Your task to perform on an android device: When is my next meeting? Image 0: 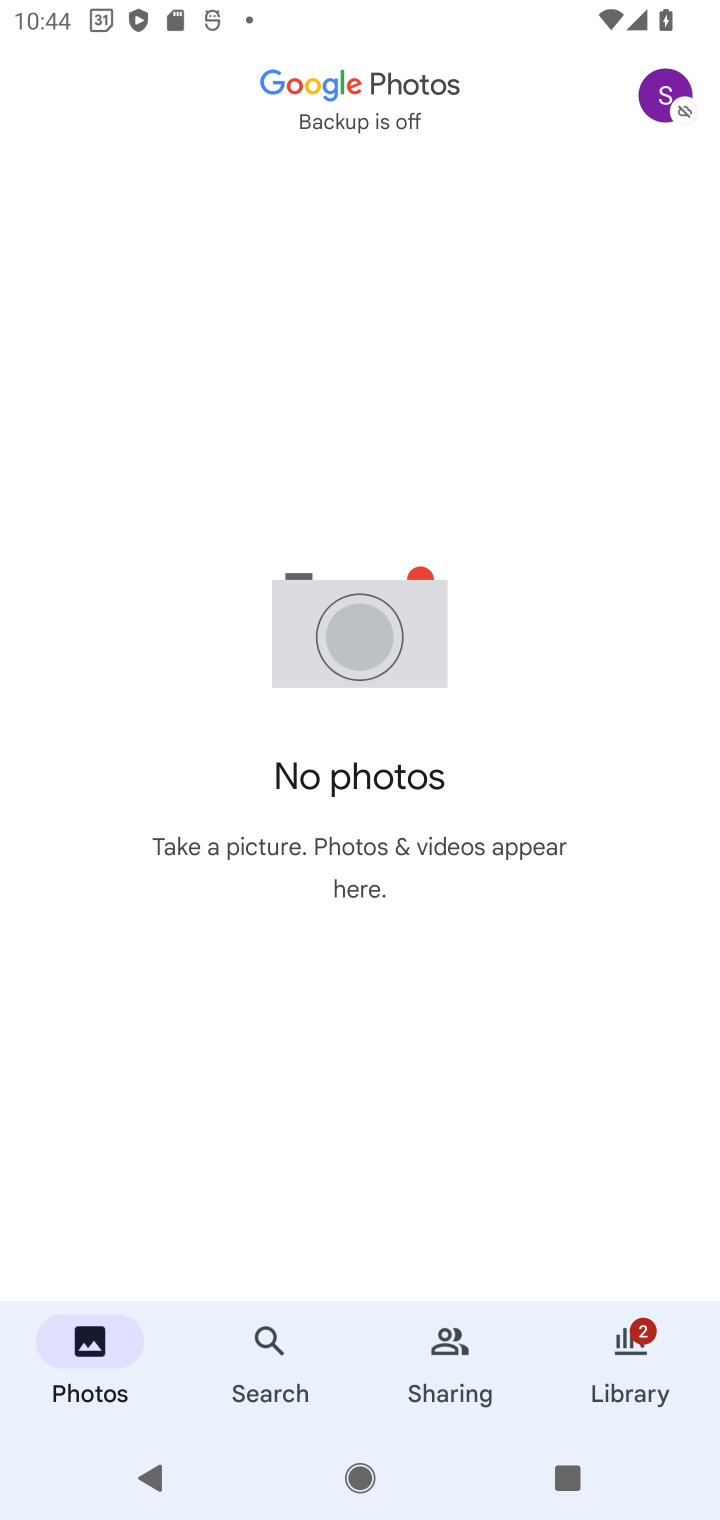
Step 0: press home button
Your task to perform on an android device: When is my next meeting? Image 1: 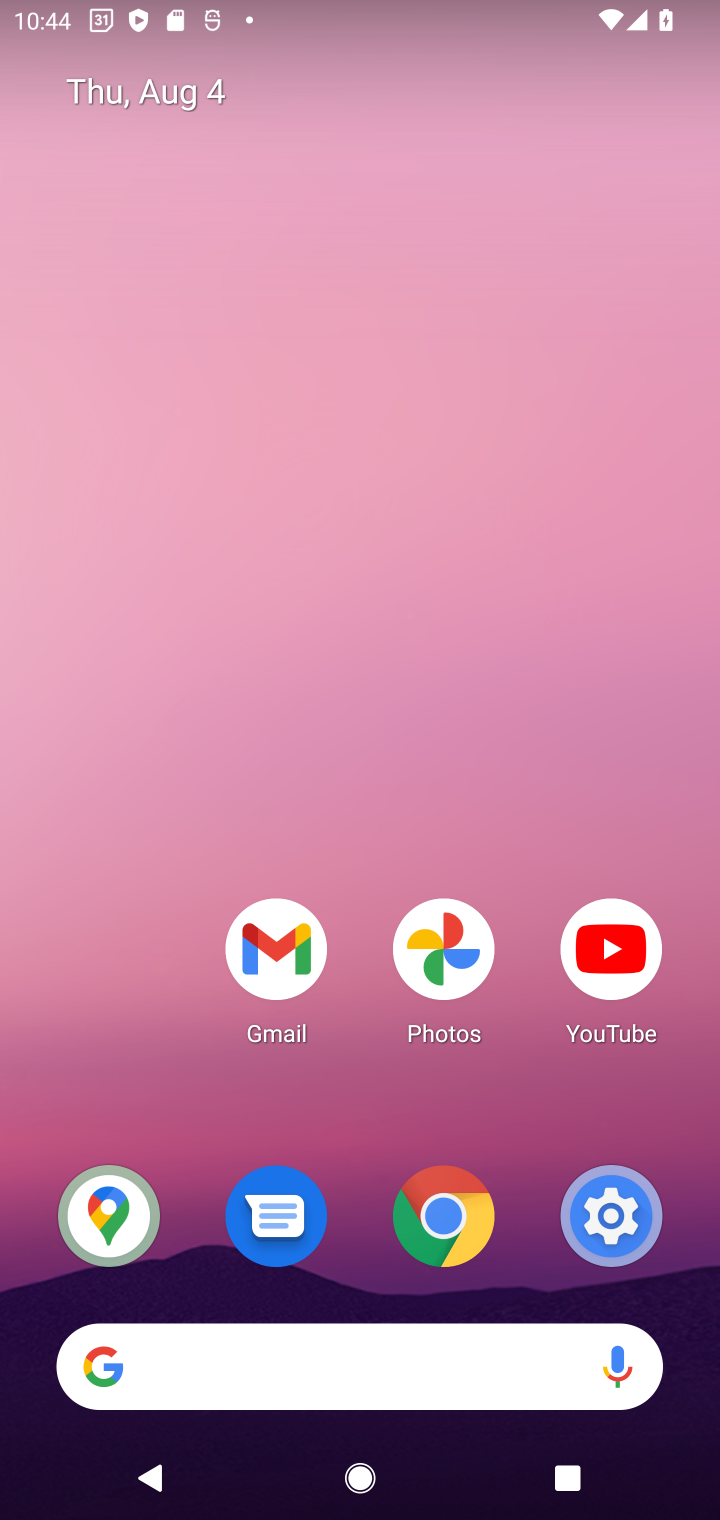
Step 1: drag from (246, 1363) to (511, 383)
Your task to perform on an android device: When is my next meeting? Image 2: 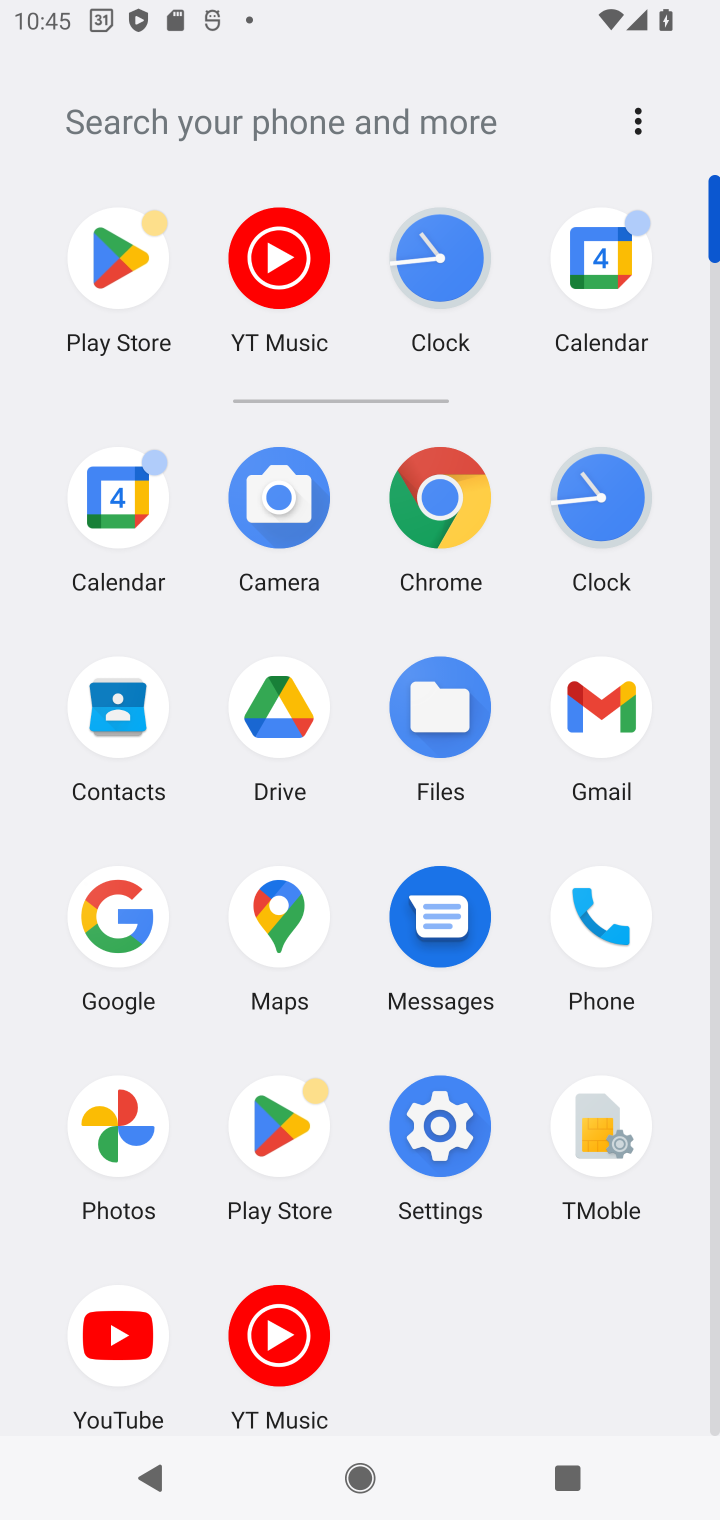
Step 2: click (608, 265)
Your task to perform on an android device: When is my next meeting? Image 3: 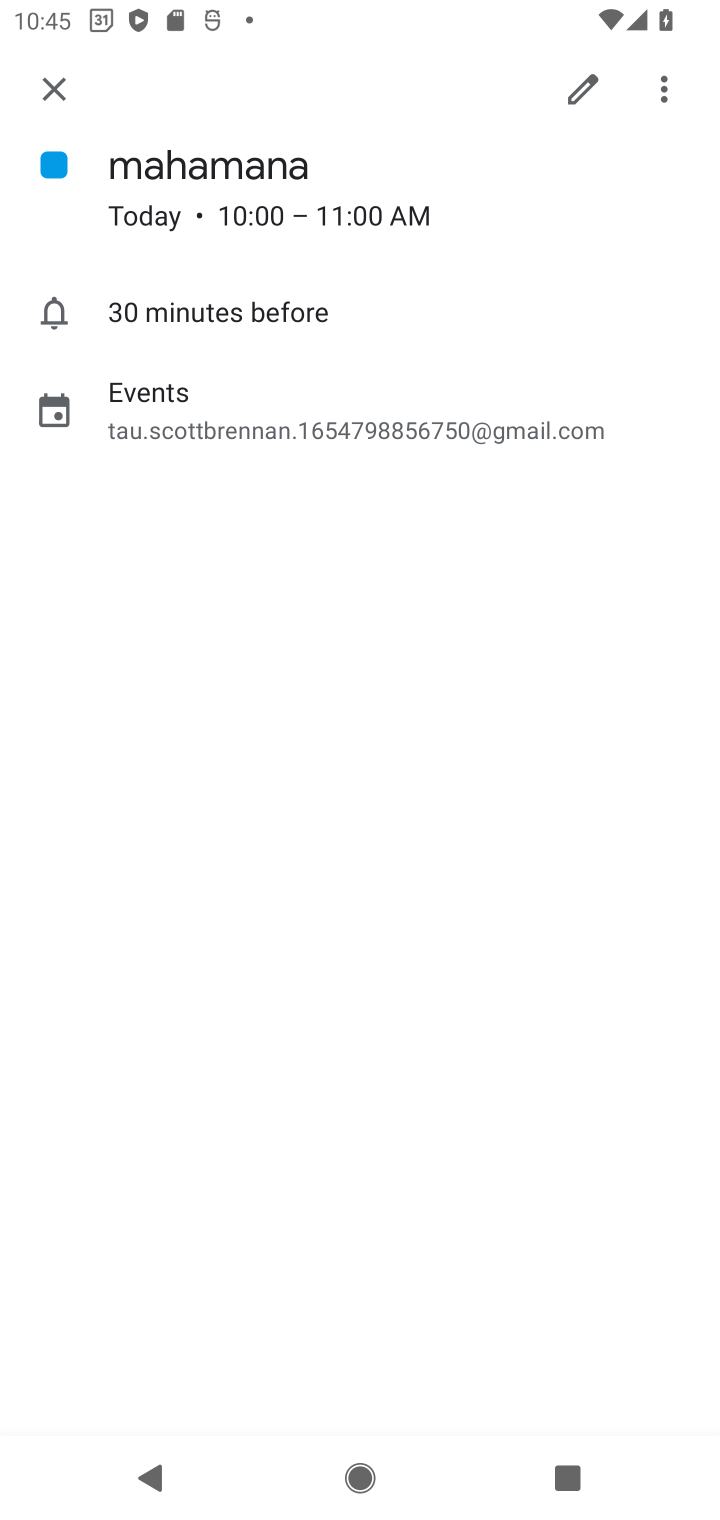
Step 3: click (46, 95)
Your task to perform on an android device: When is my next meeting? Image 4: 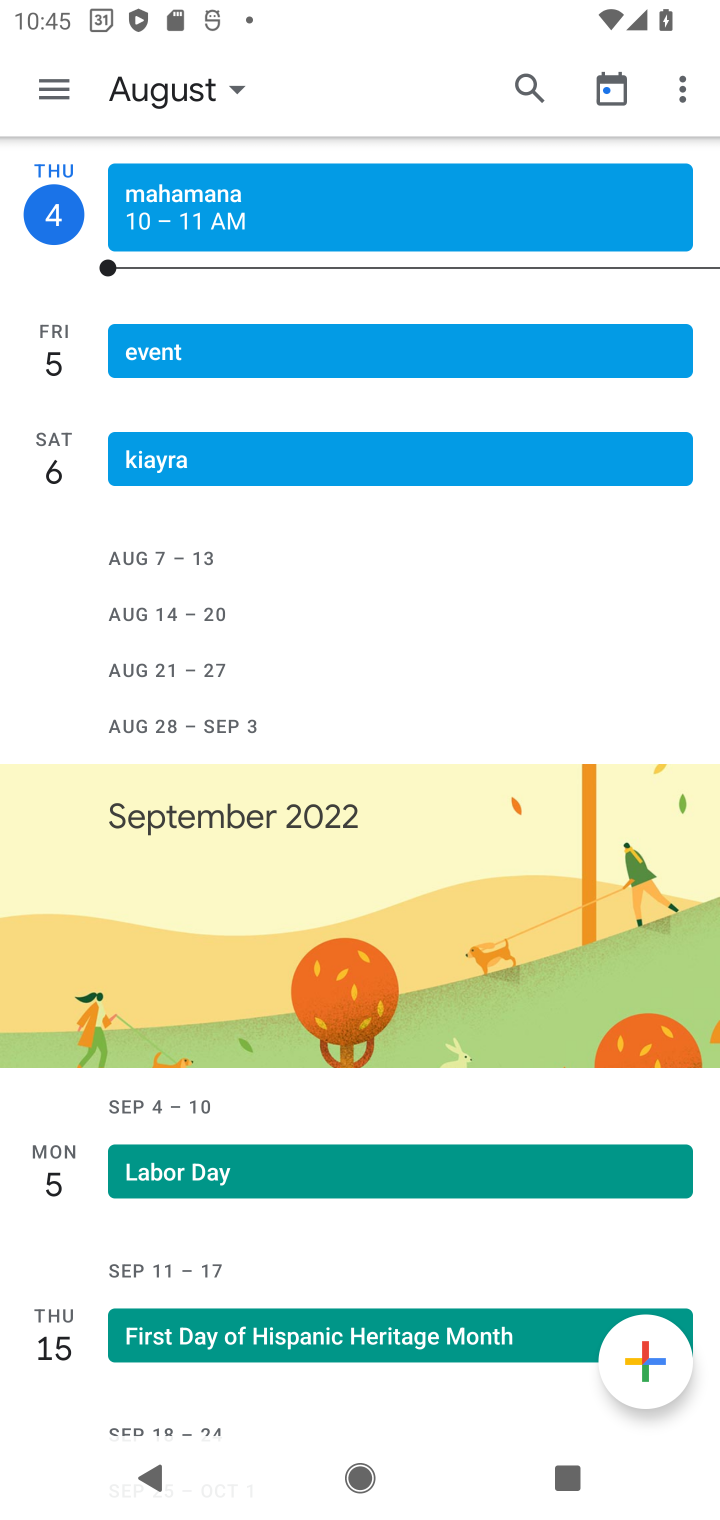
Step 4: click (610, 95)
Your task to perform on an android device: When is my next meeting? Image 5: 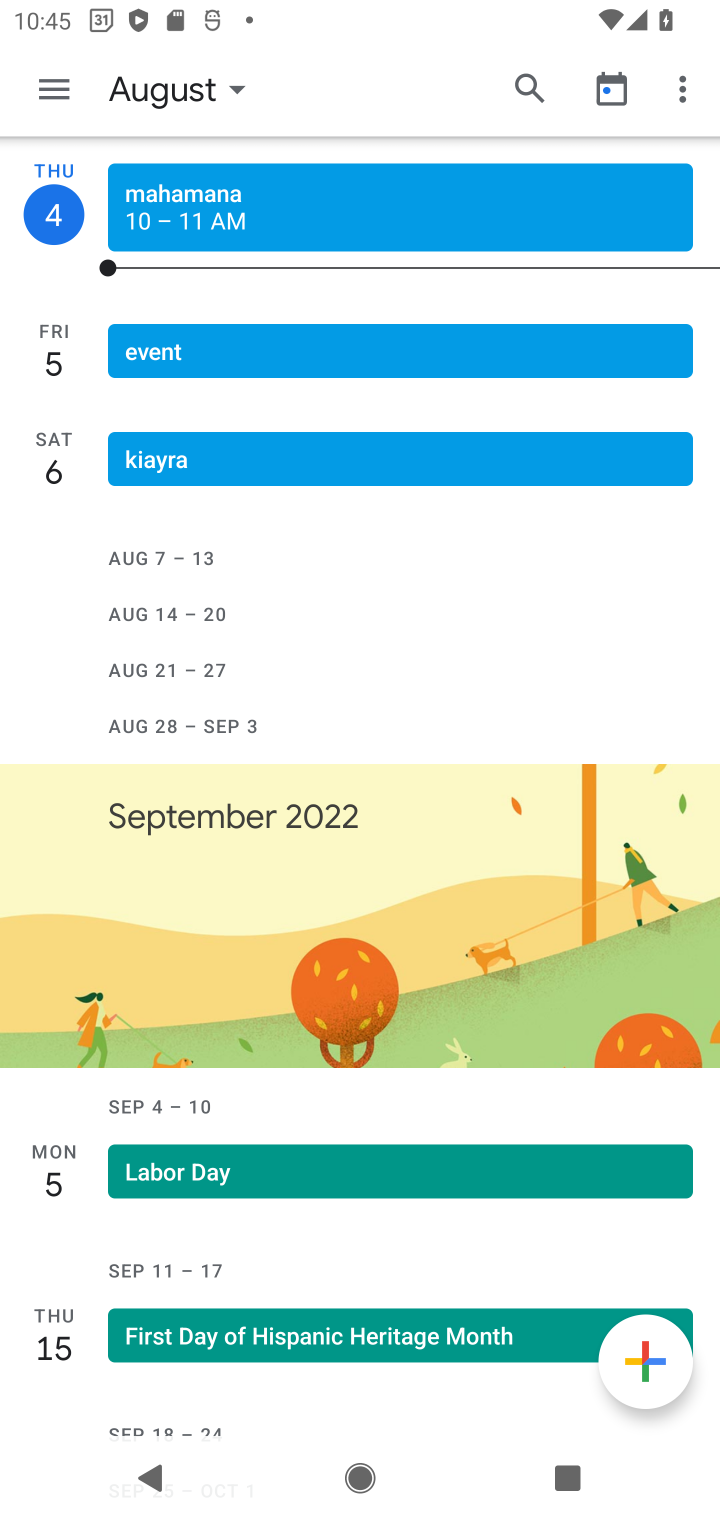
Step 5: click (233, 74)
Your task to perform on an android device: When is my next meeting? Image 6: 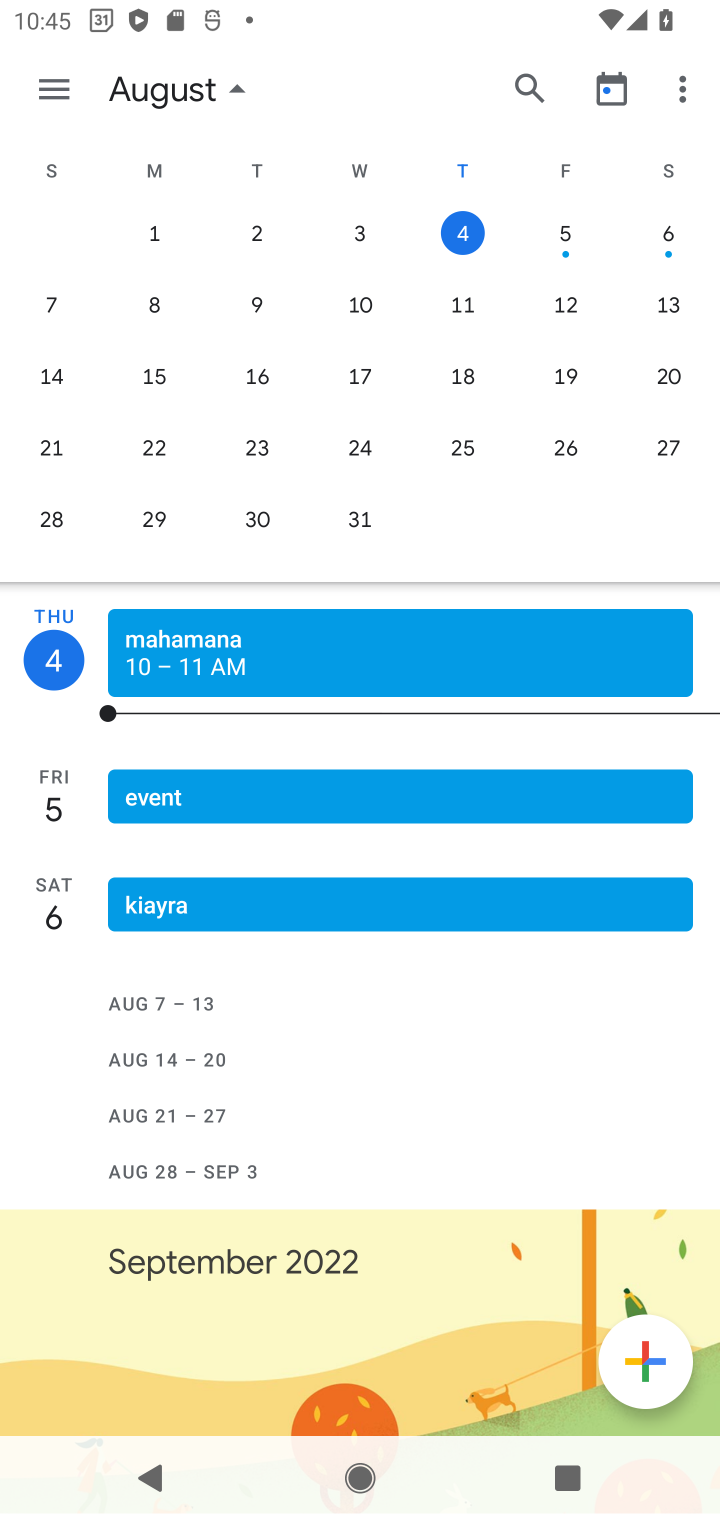
Step 6: click (558, 217)
Your task to perform on an android device: When is my next meeting? Image 7: 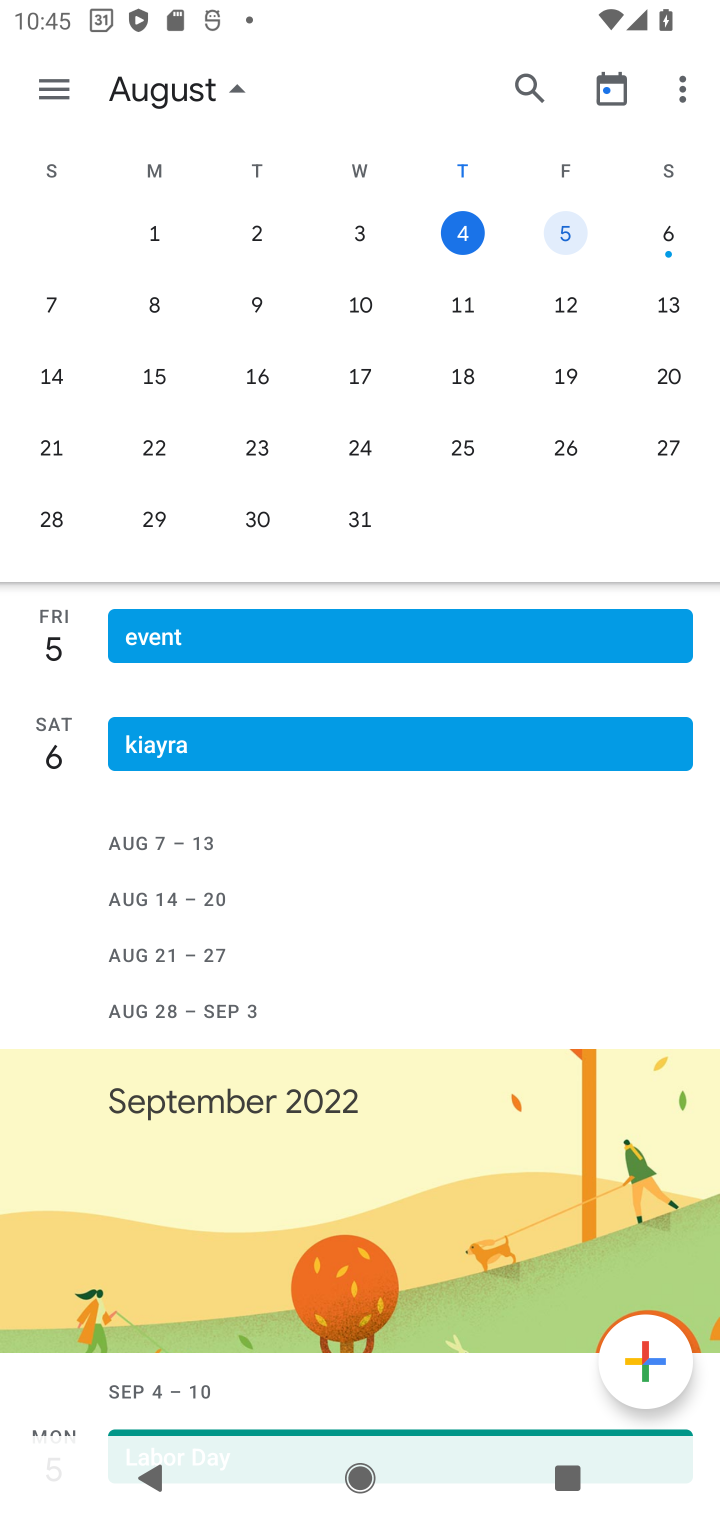
Step 7: click (43, 102)
Your task to perform on an android device: When is my next meeting? Image 8: 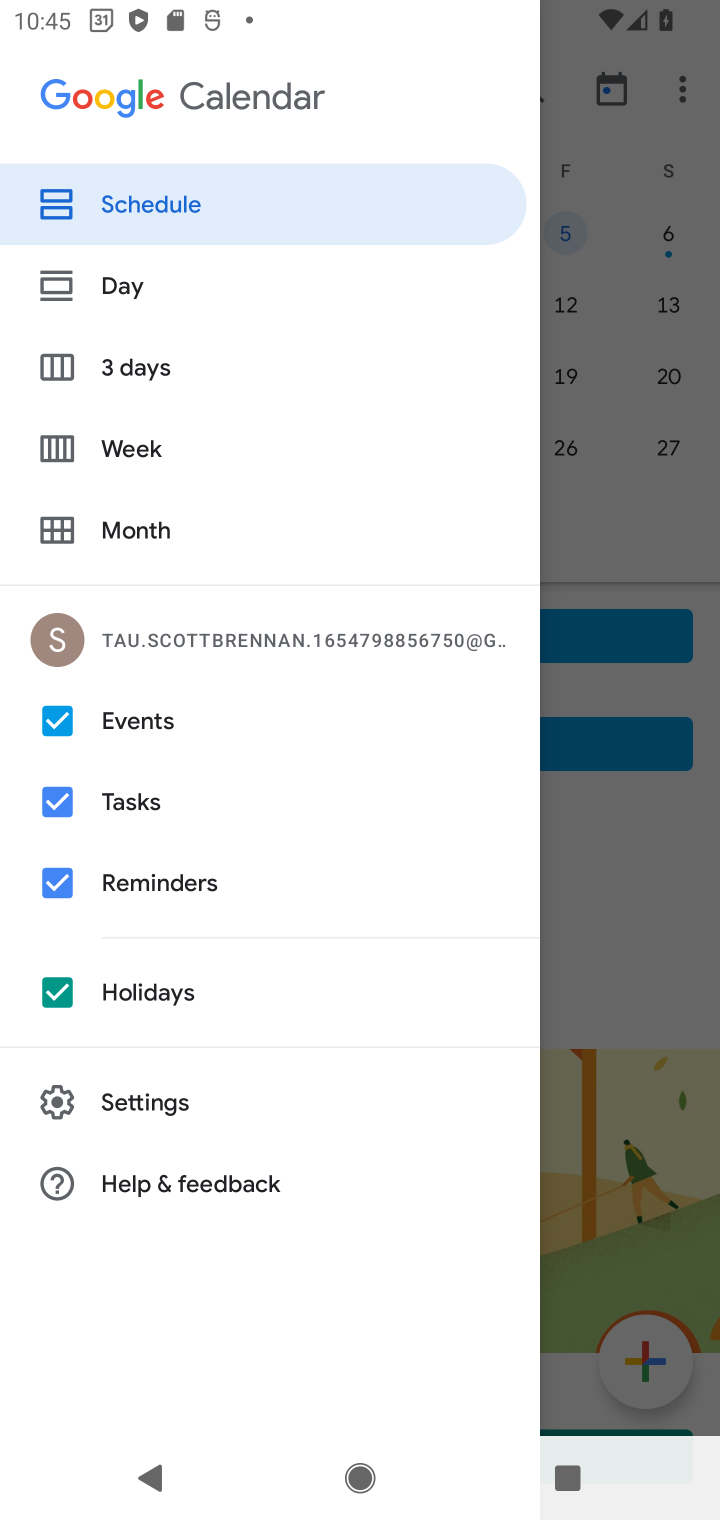
Step 8: click (106, 226)
Your task to perform on an android device: When is my next meeting? Image 9: 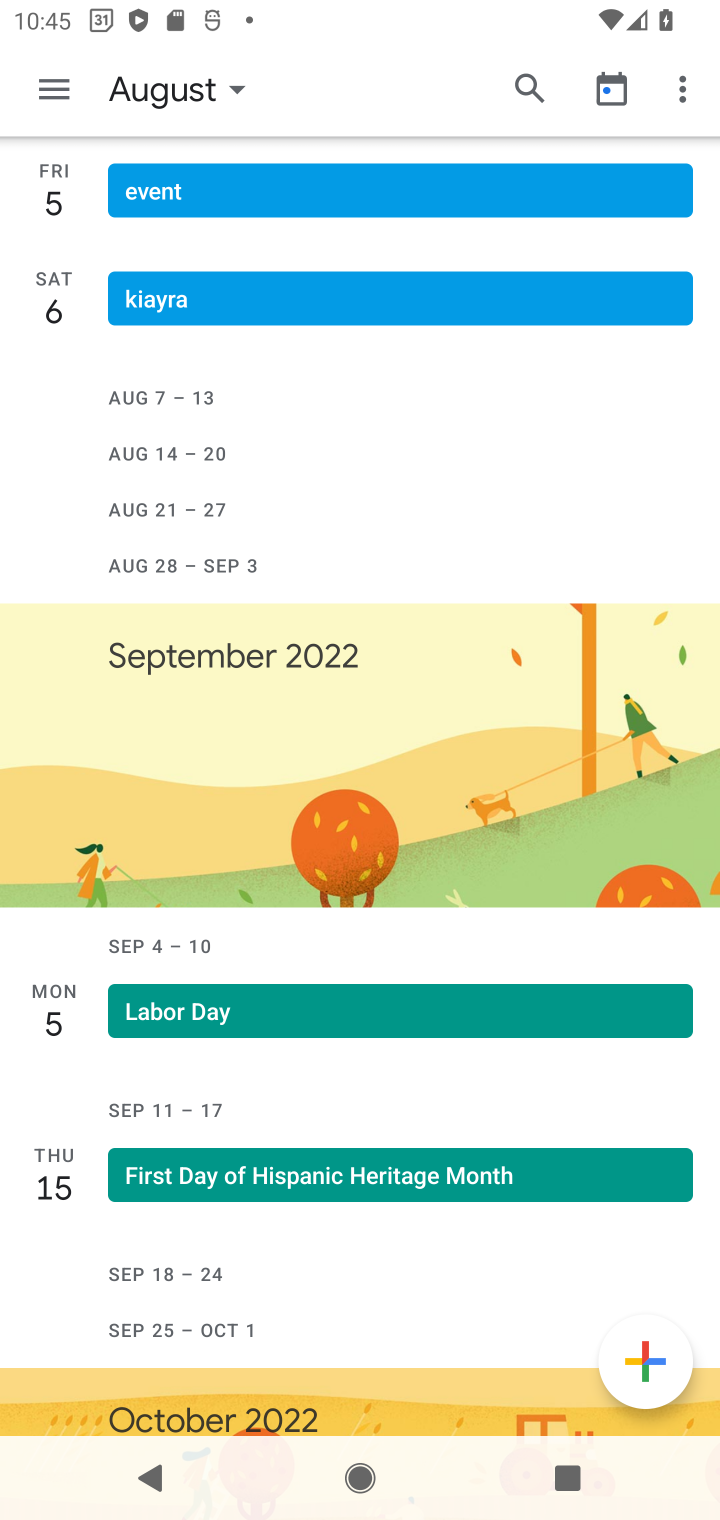
Step 9: task complete